Your task to perform on an android device: Open the Play Movies app and select the watchlist tab. Image 0: 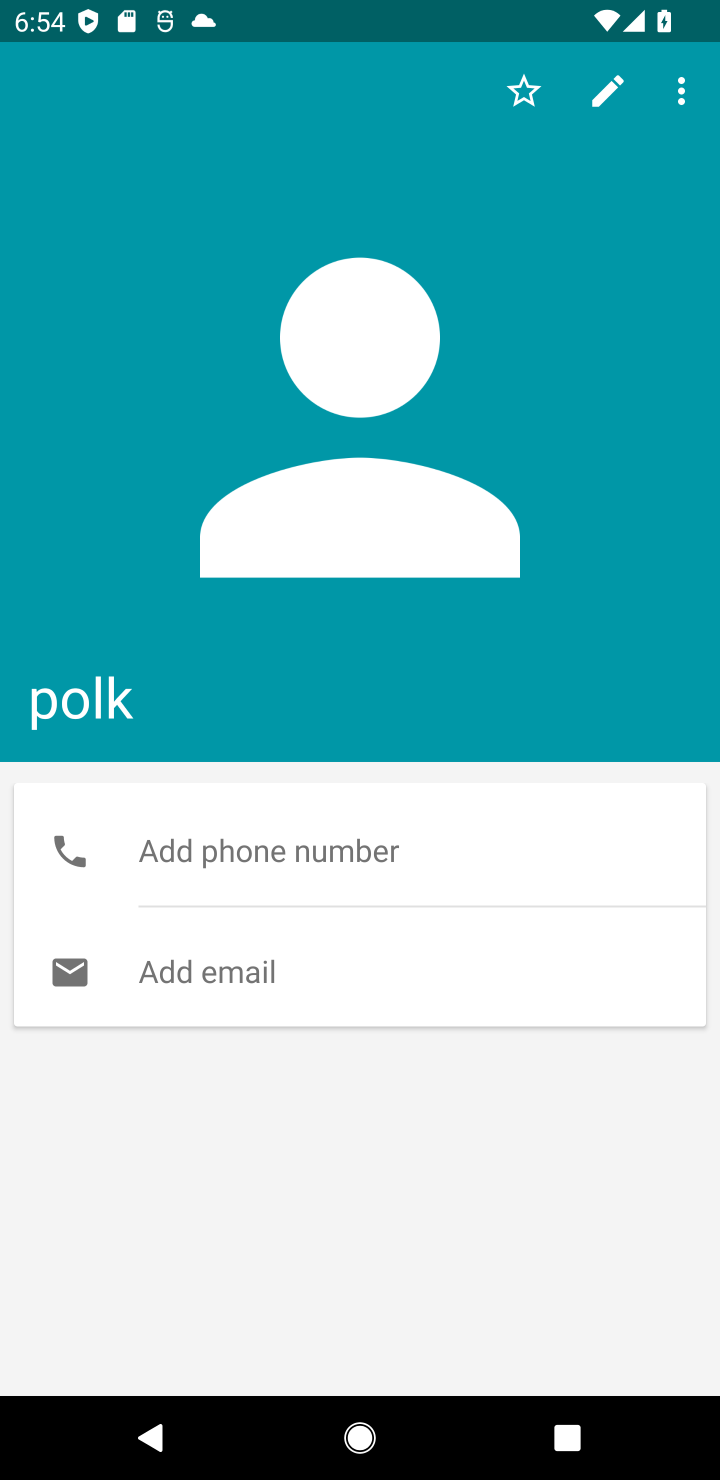
Step 0: press home button
Your task to perform on an android device: Open the Play Movies app and select the watchlist tab. Image 1: 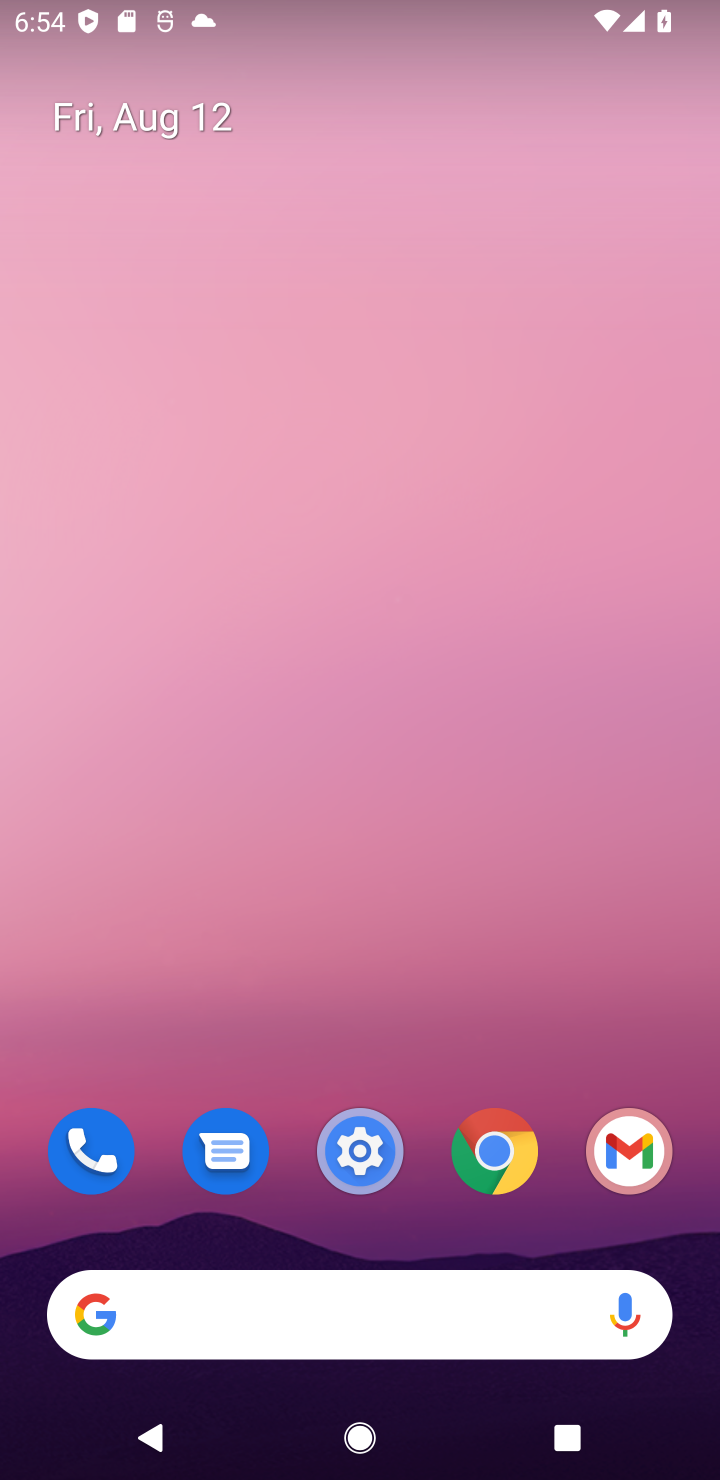
Step 1: drag from (472, 951) to (703, 19)
Your task to perform on an android device: Open the Play Movies app and select the watchlist tab. Image 2: 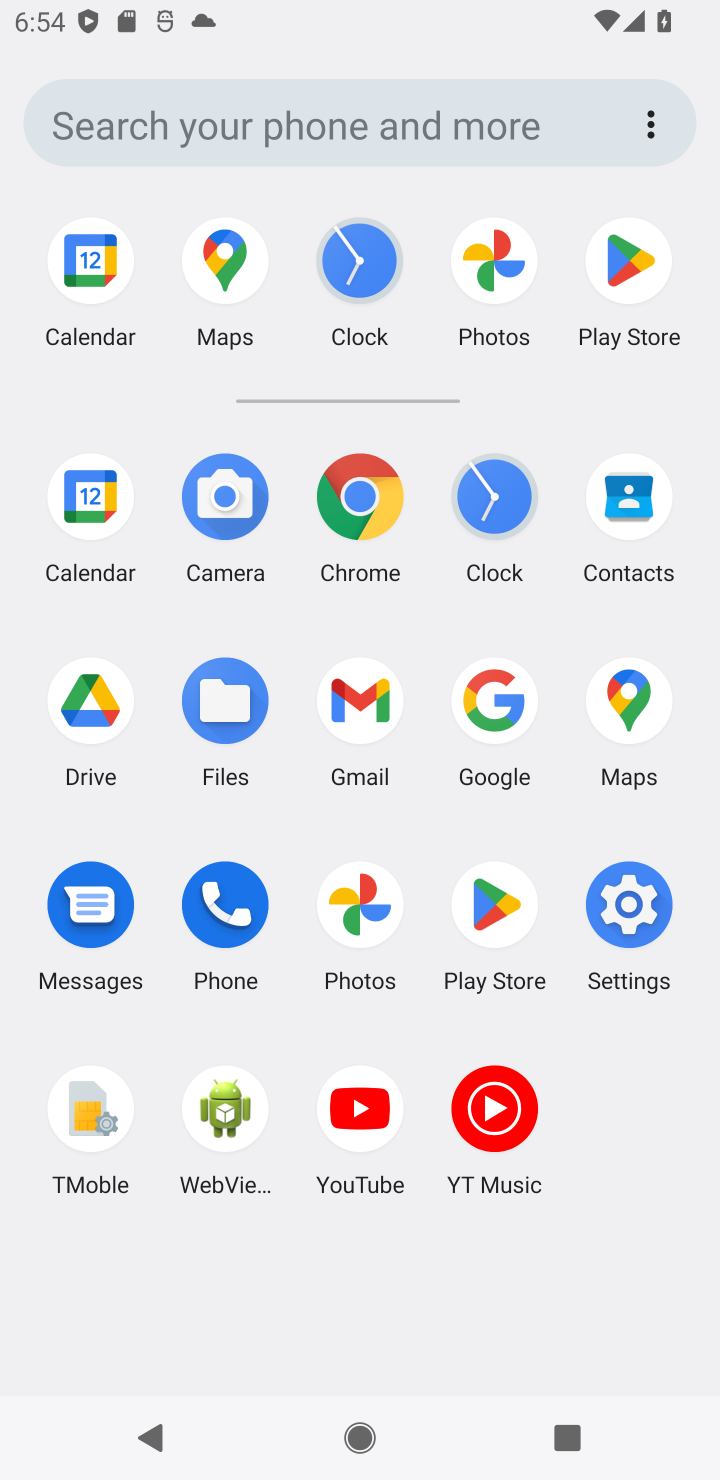
Step 2: drag from (601, 1067) to (39, 956)
Your task to perform on an android device: Open the Play Movies app and select the watchlist tab. Image 3: 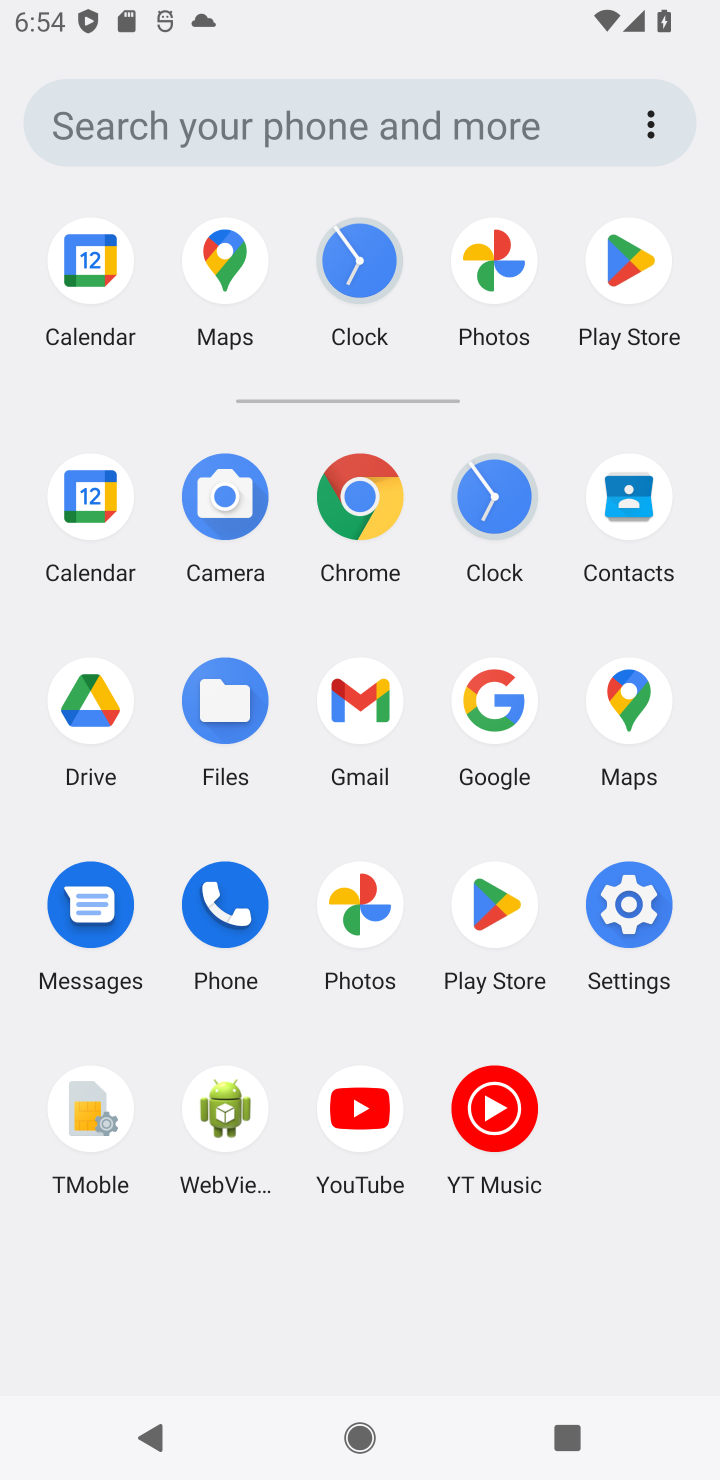
Step 3: click (489, 910)
Your task to perform on an android device: Open the Play Movies app and select the watchlist tab. Image 4: 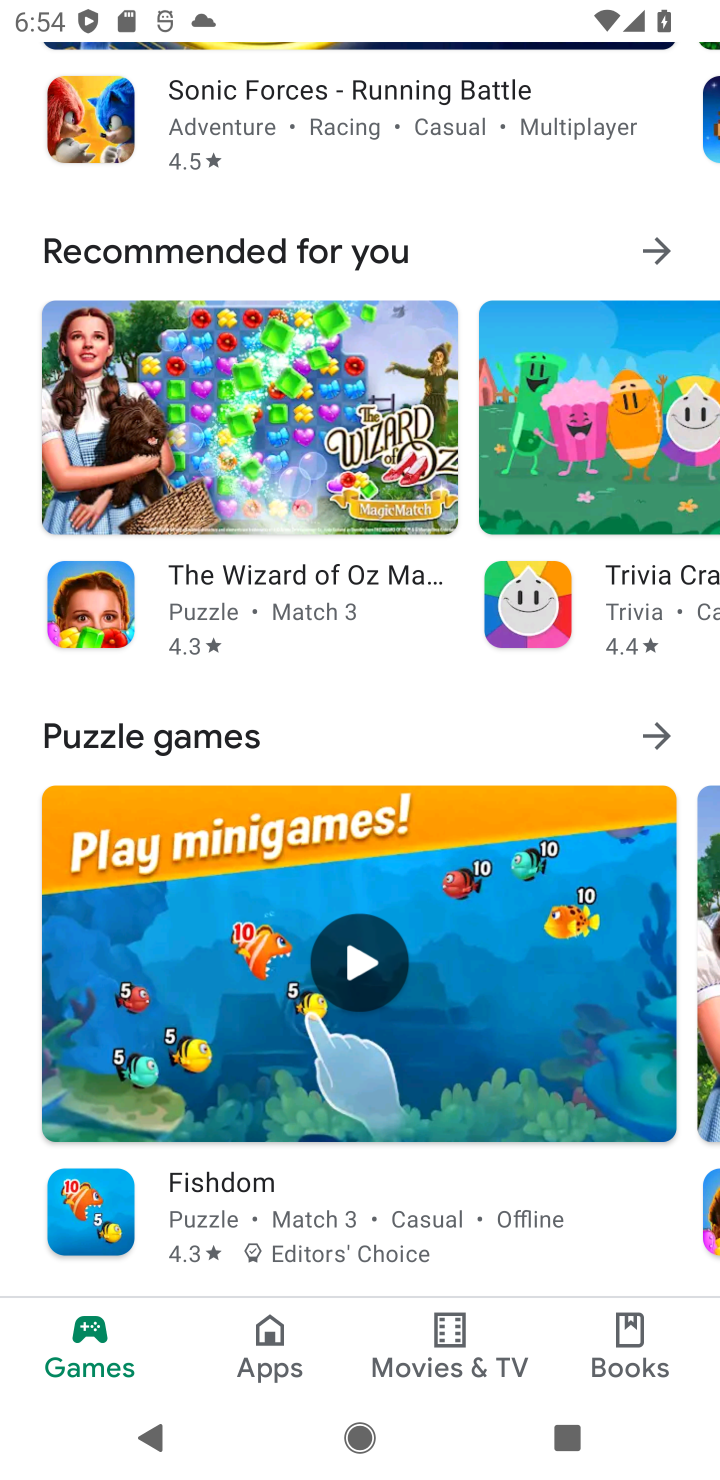
Step 4: drag from (480, 255) to (441, 1121)
Your task to perform on an android device: Open the Play Movies app and select the watchlist tab. Image 5: 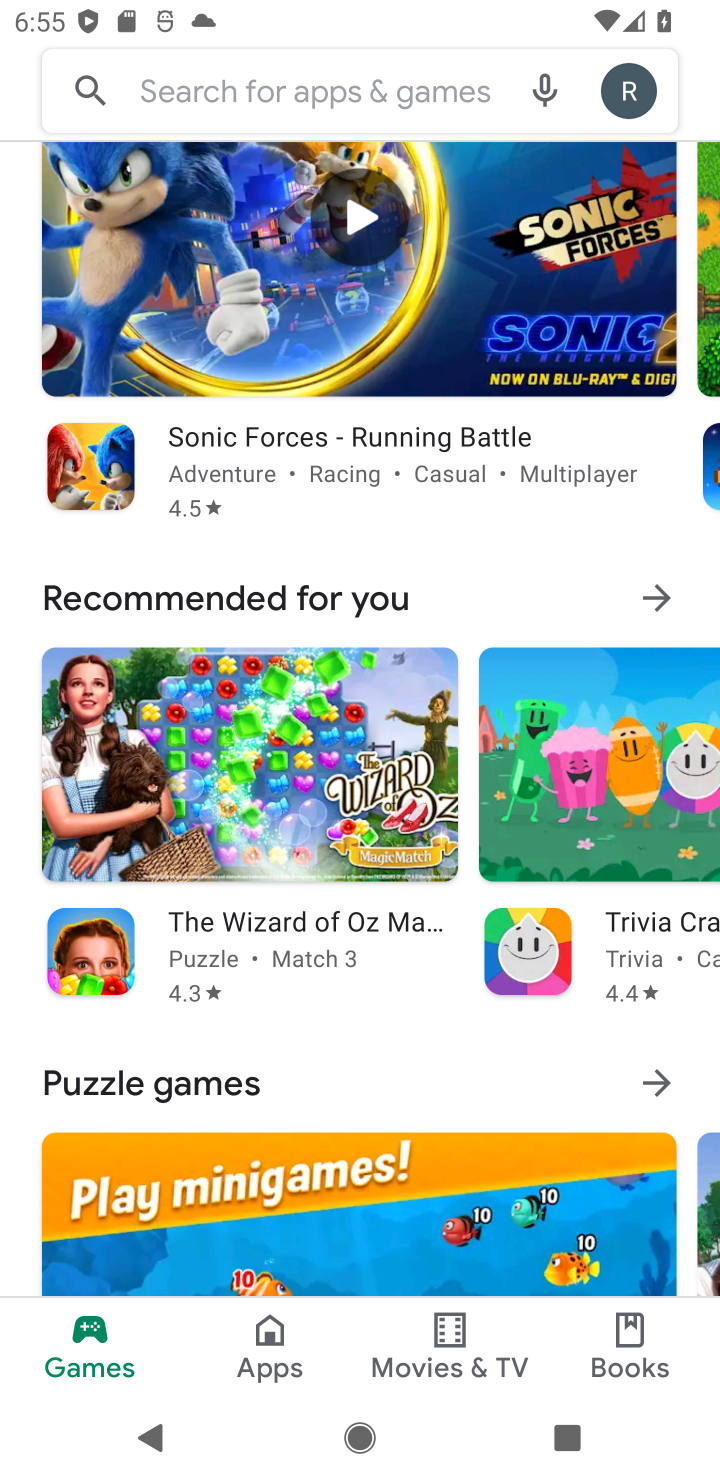
Step 5: click (400, 66)
Your task to perform on an android device: Open the Play Movies app and select the watchlist tab. Image 6: 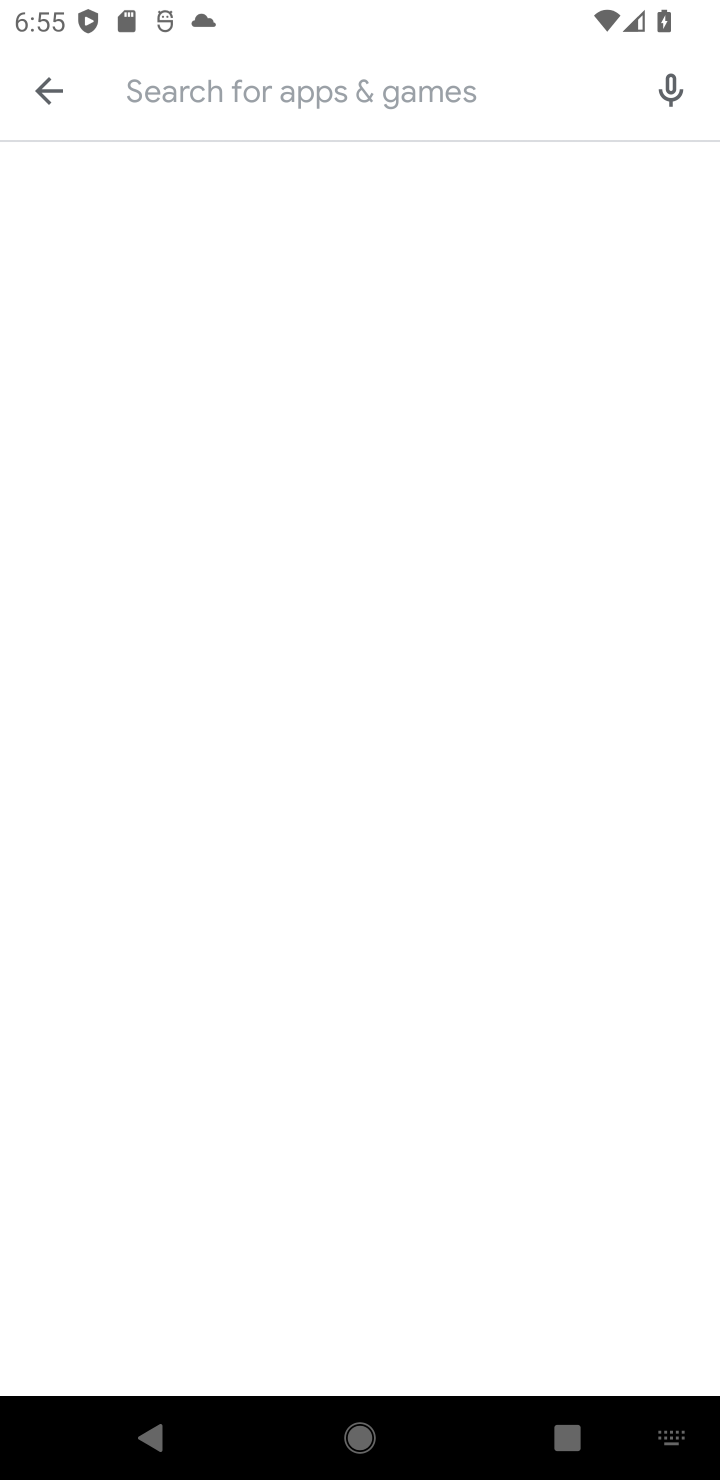
Step 6: type "play movies"
Your task to perform on an android device: Open the Play Movies app and select the watchlist tab. Image 7: 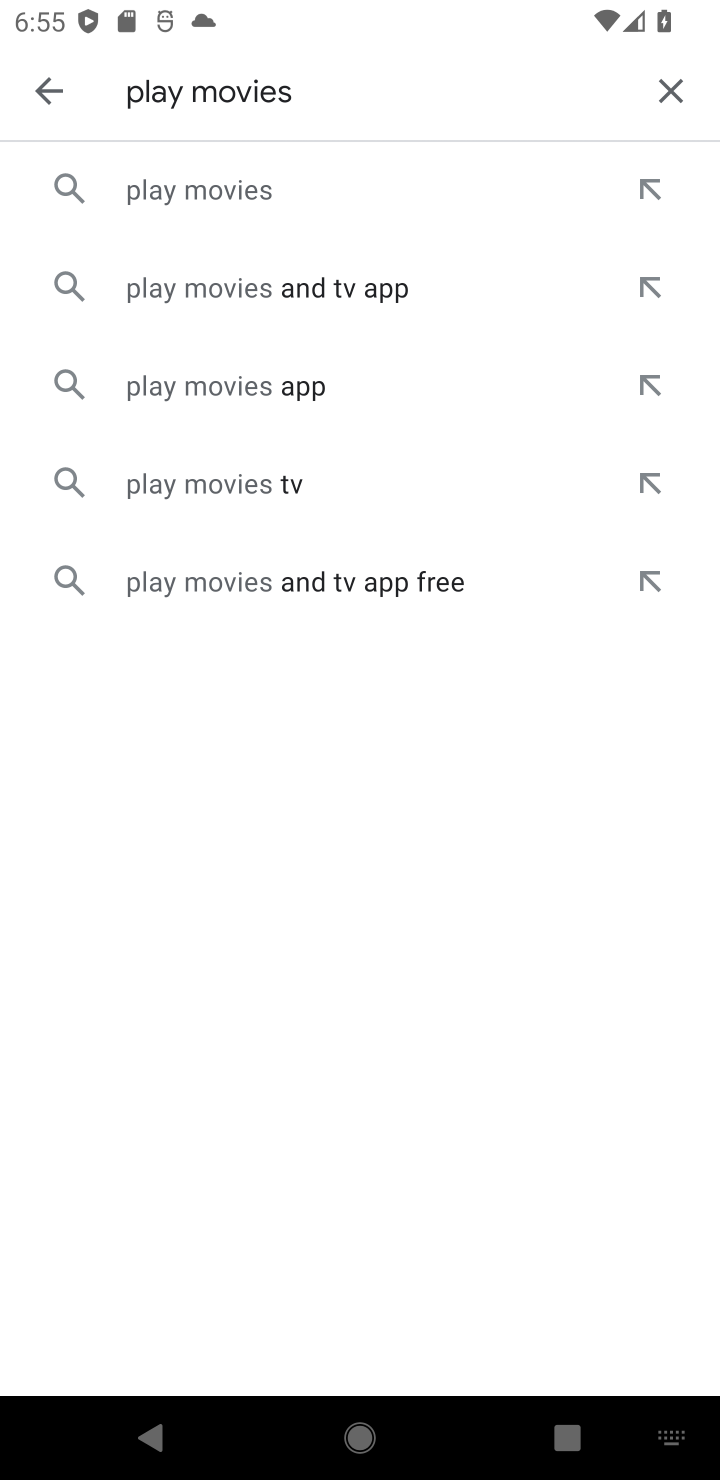
Step 7: click (295, 193)
Your task to perform on an android device: Open the Play Movies app and select the watchlist tab. Image 8: 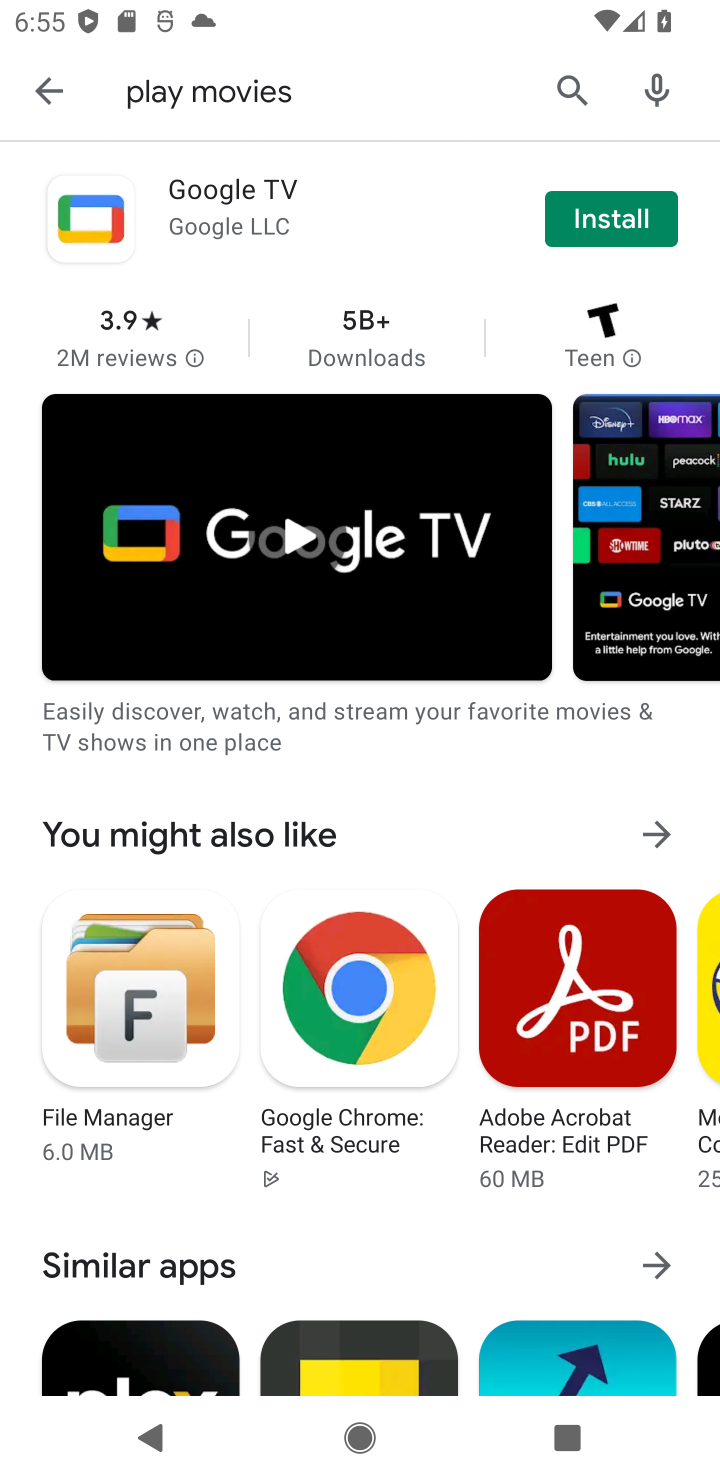
Step 8: task complete